Your task to perform on an android device: create a new album in the google photos Image 0: 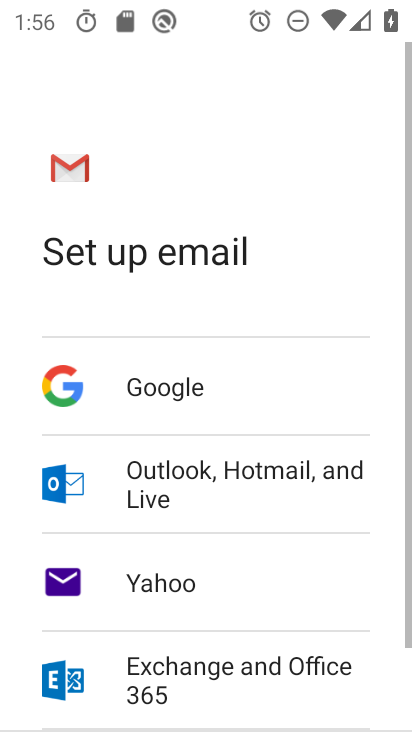
Step 0: press home button
Your task to perform on an android device: create a new album in the google photos Image 1: 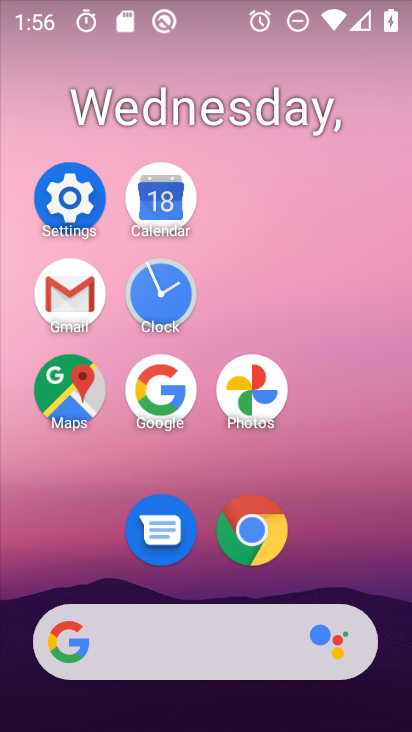
Step 1: click (254, 390)
Your task to perform on an android device: create a new album in the google photos Image 2: 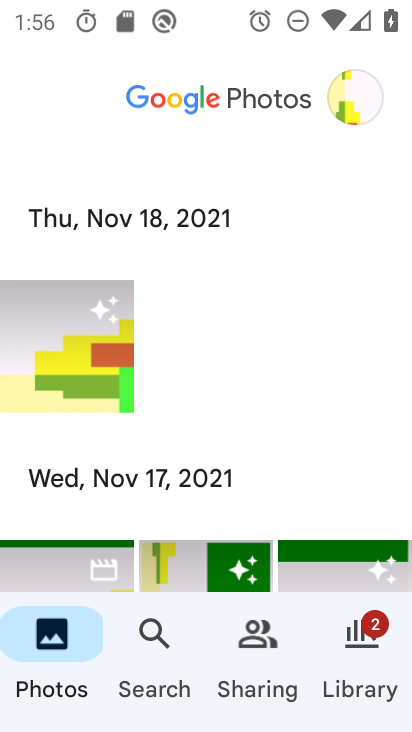
Step 2: drag from (269, 324) to (286, 171)
Your task to perform on an android device: create a new album in the google photos Image 3: 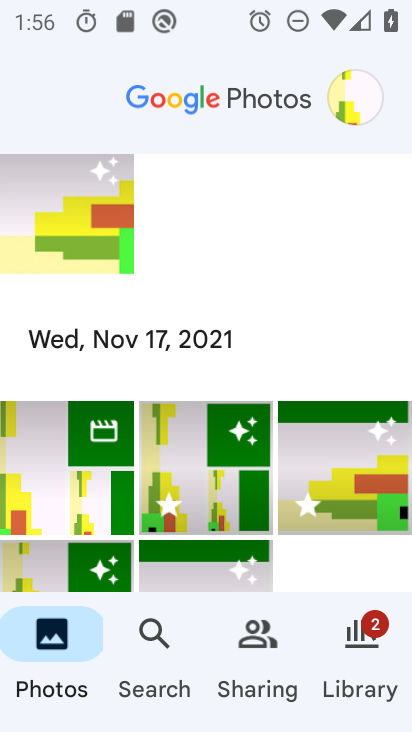
Step 3: drag from (251, 480) to (305, 109)
Your task to perform on an android device: create a new album in the google photos Image 4: 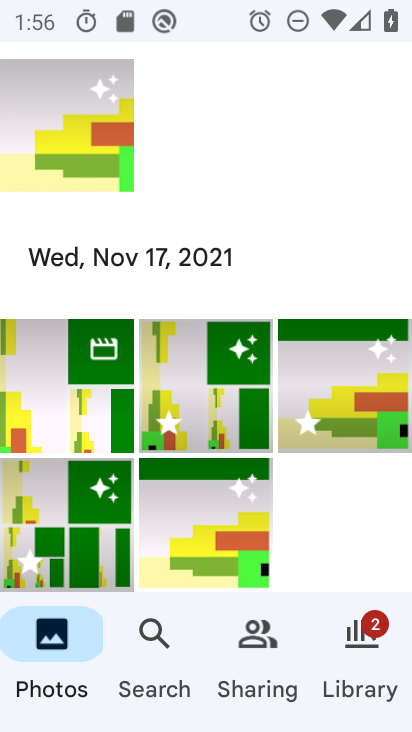
Step 4: drag from (339, 341) to (342, 73)
Your task to perform on an android device: create a new album in the google photos Image 5: 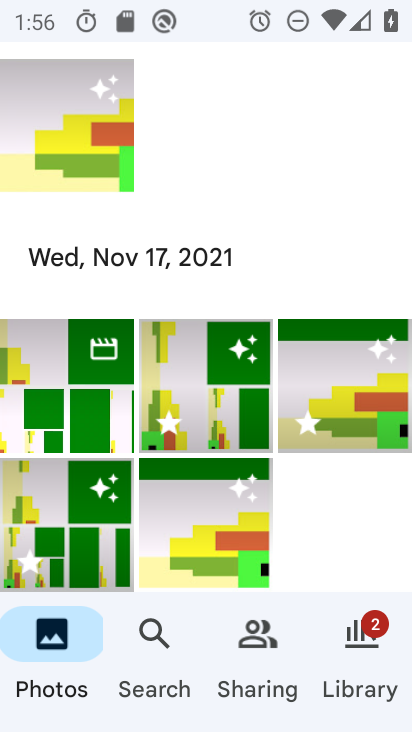
Step 5: click (355, 632)
Your task to perform on an android device: create a new album in the google photos Image 6: 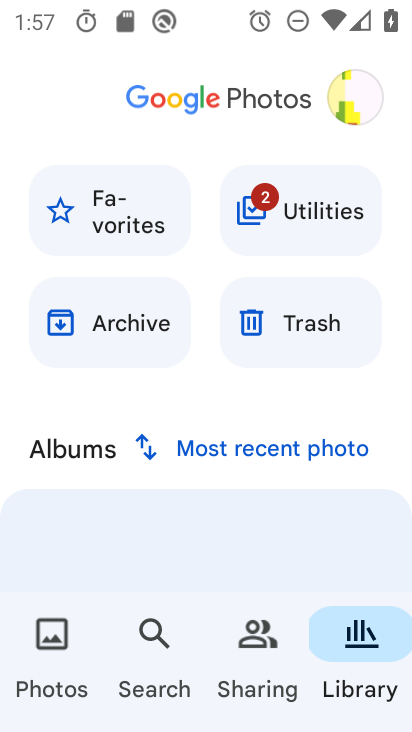
Step 6: drag from (259, 527) to (282, 144)
Your task to perform on an android device: create a new album in the google photos Image 7: 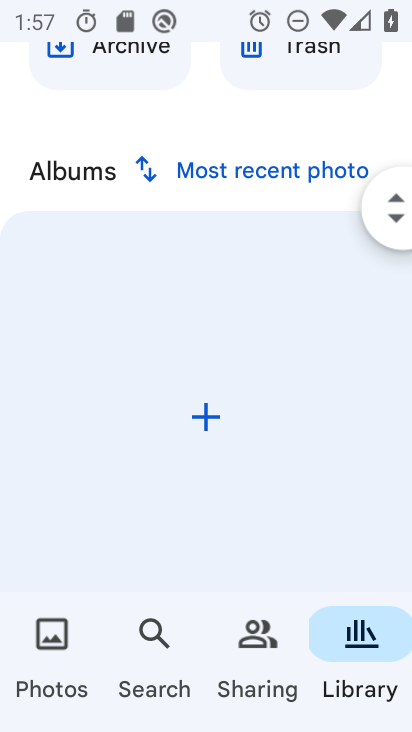
Step 7: click (211, 416)
Your task to perform on an android device: create a new album in the google photos Image 8: 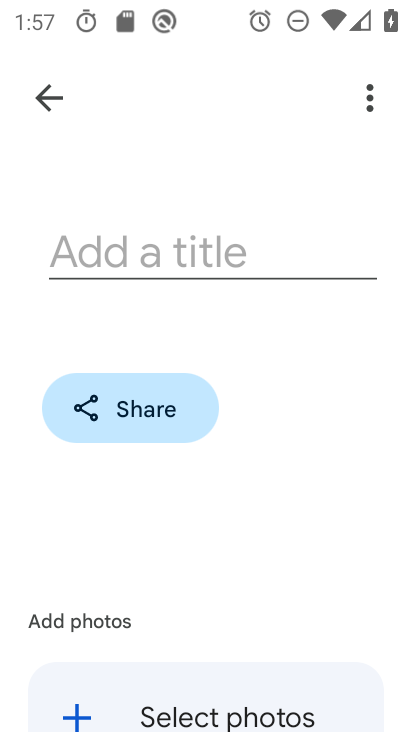
Step 8: click (221, 247)
Your task to perform on an android device: create a new album in the google photos Image 9: 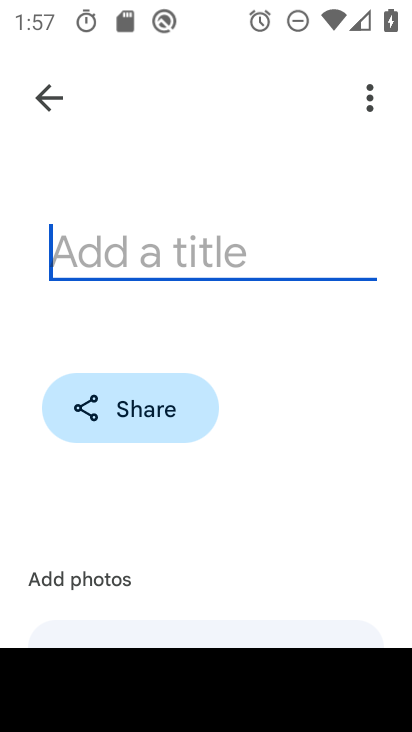
Step 9: type "tt"
Your task to perform on an android device: create a new album in the google photos Image 10: 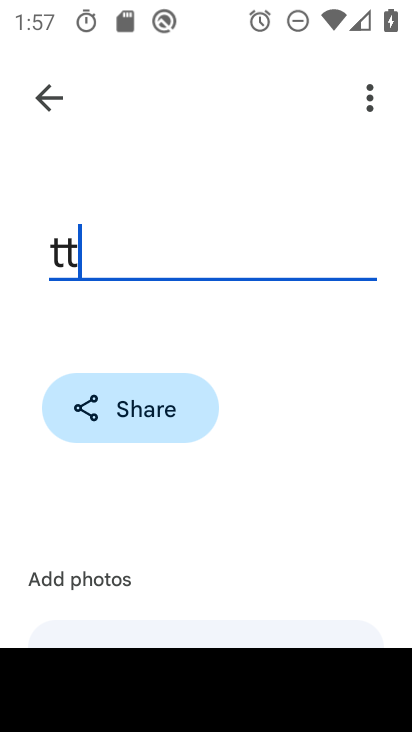
Step 10: click (61, 591)
Your task to perform on an android device: create a new album in the google photos Image 11: 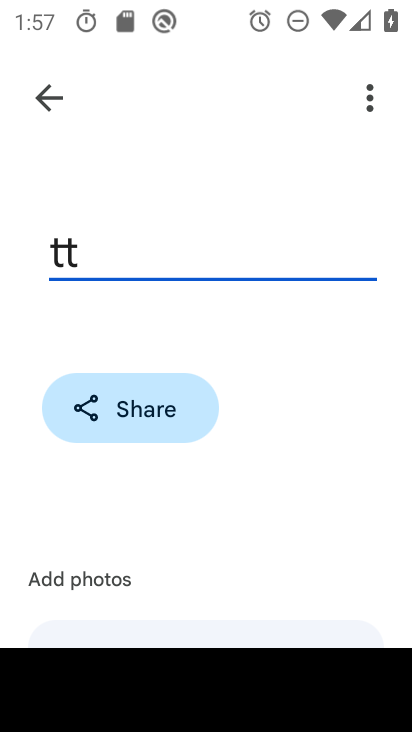
Step 11: click (223, 631)
Your task to perform on an android device: create a new album in the google photos Image 12: 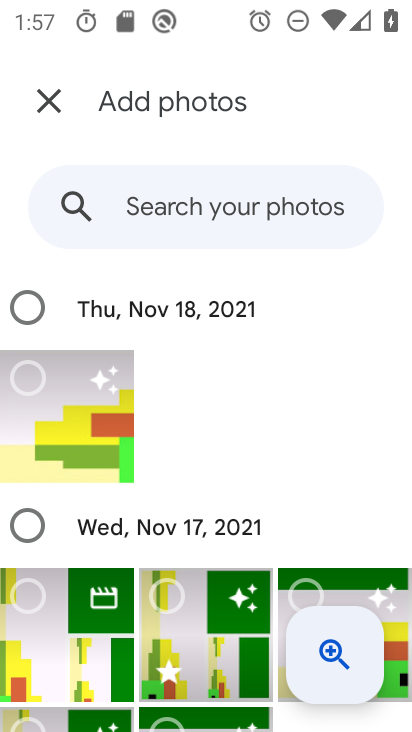
Step 12: click (27, 591)
Your task to perform on an android device: create a new album in the google photos Image 13: 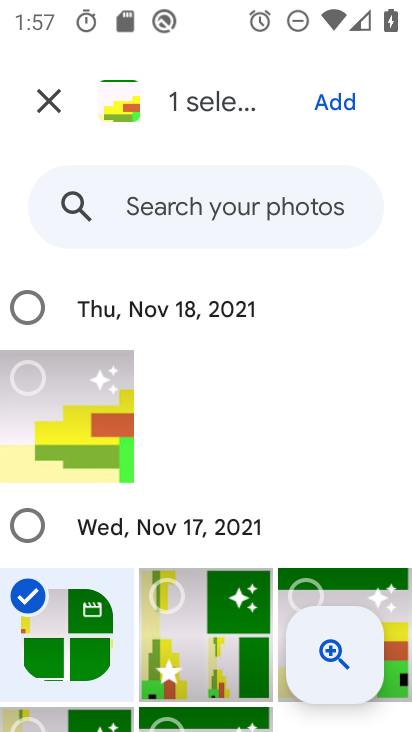
Step 13: click (340, 98)
Your task to perform on an android device: create a new album in the google photos Image 14: 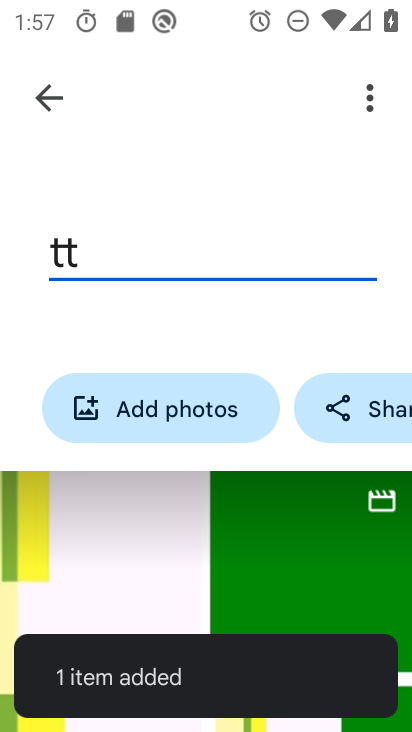
Step 14: task complete